Your task to perform on an android device: Search for seafood restaurants on Google Maps Image 0: 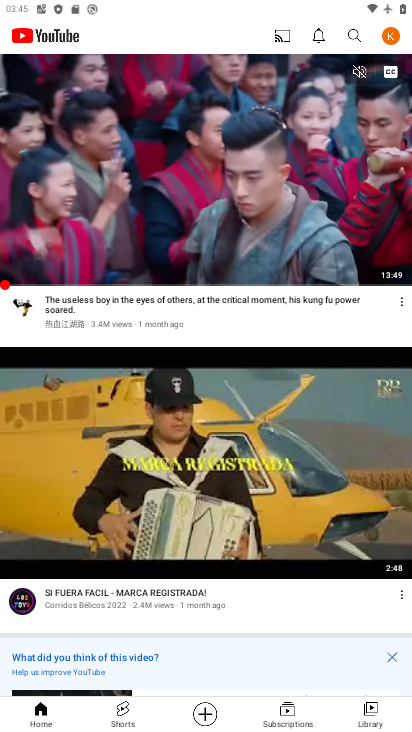
Step 0: press home button
Your task to perform on an android device: Search for seafood restaurants on Google Maps Image 1: 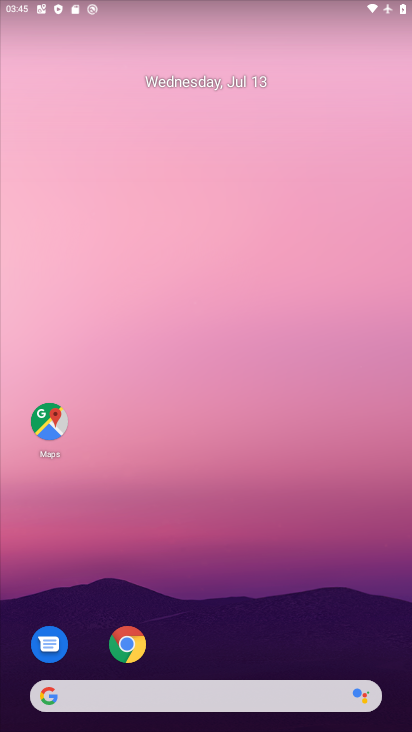
Step 1: drag from (373, 216) to (386, 150)
Your task to perform on an android device: Search for seafood restaurants on Google Maps Image 2: 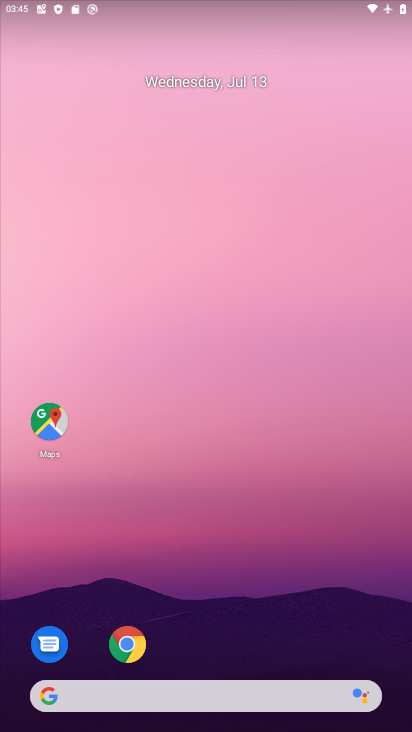
Step 2: click (53, 423)
Your task to perform on an android device: Search for seafood restaurants on Google Maps Image 3: 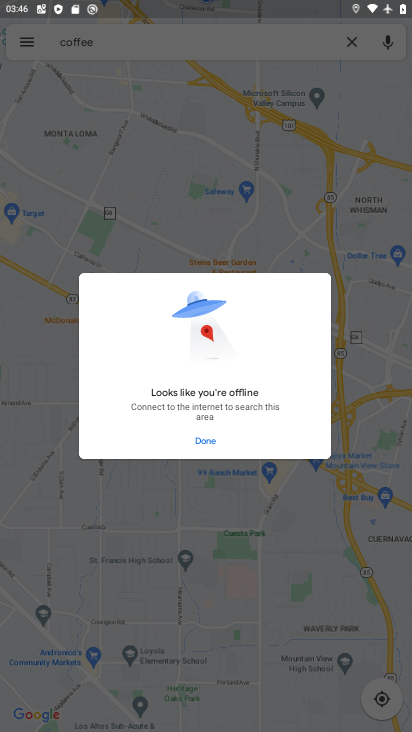
Step 3: click (204, 436)
Your task to perform on an android device: Search for seafood restaurants on Google Maps Image 4: 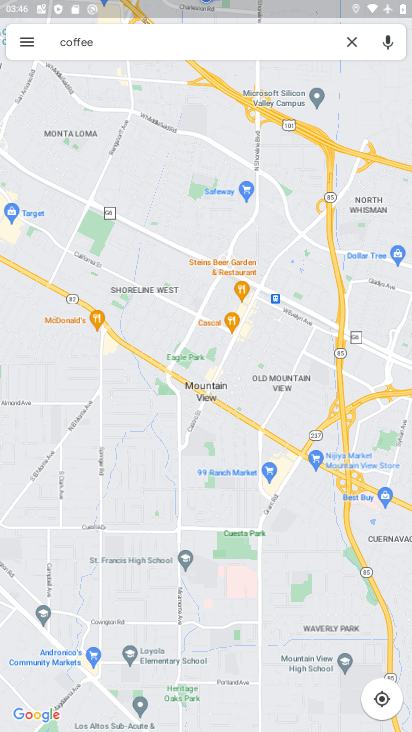
Step 4: click (228, 36)
Your task to perform on an android device: Search for seafood restaurants on Google Maps Image 5: 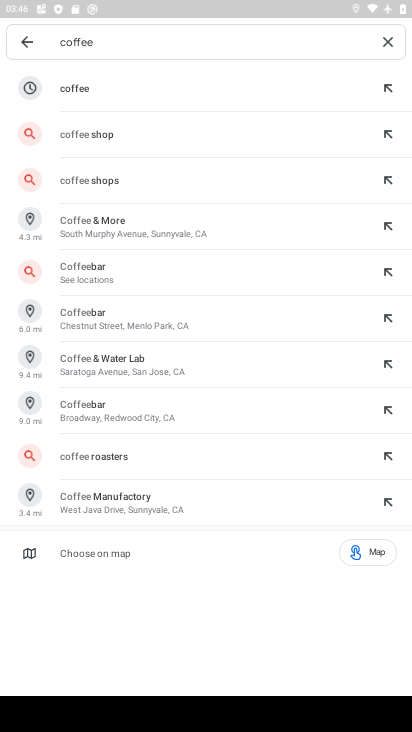
Step 5: click (393, 40)
Your task to perform on an android device: Search for seafood restaurants on Google Maps Image 6: 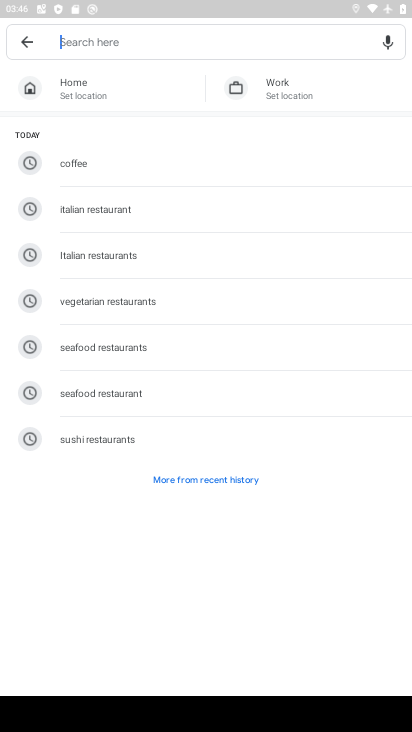
Step 6: type "seafood restaurants"
Your task to perform on an android device: Search for seafood restaurants on Google Maps Image 7: 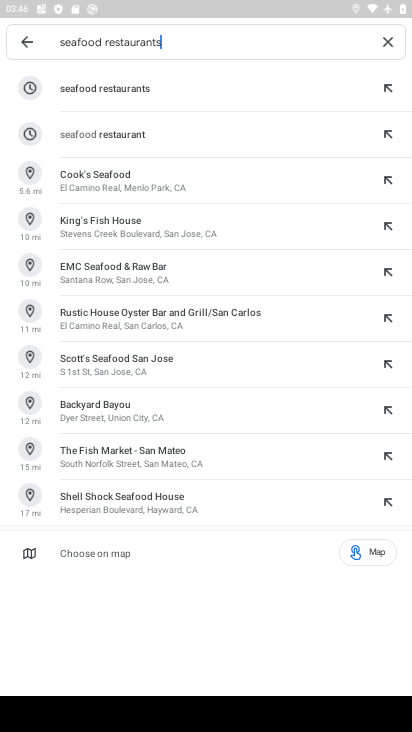
Step 7: click (136, 90)
Your task to perform on an android device: Search for seafood restaurants on Google Maps Image 8: 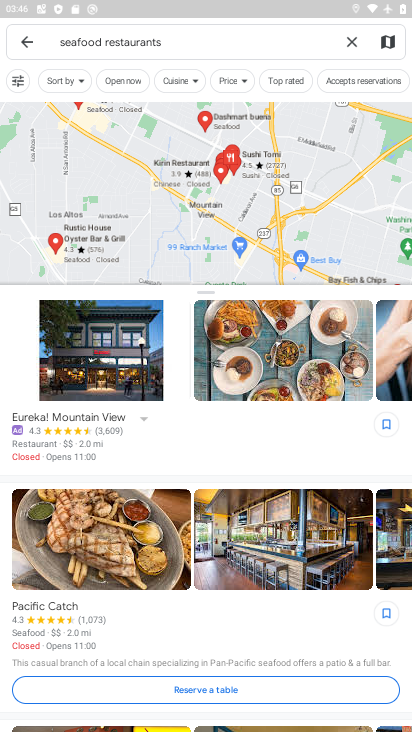
Step 8: task complete